Your task to perform on an android device: turn vacation reply on in the gmail app Image 0: 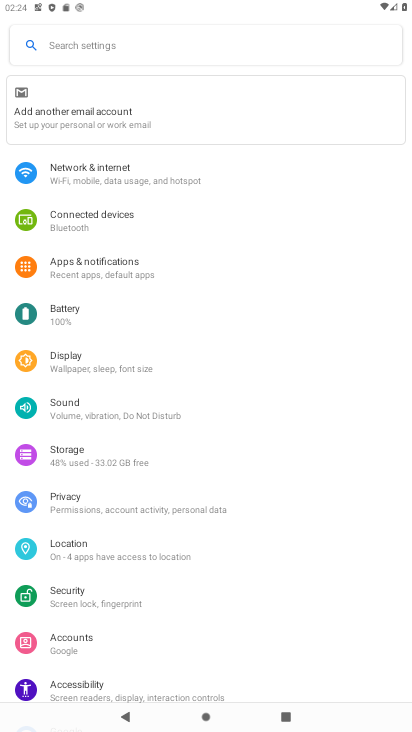
Step 0: press home button
Your task to perform on an android device: turn vacation reply on in the gmail app Image 1: 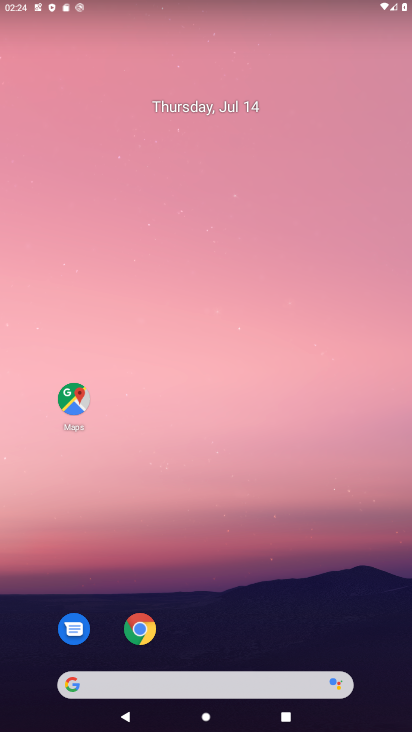
Step 1: drag from (235, 626) to (227, 3)
Your task to perform on an android device: turn vacation reply on in the gmail app Image 2: 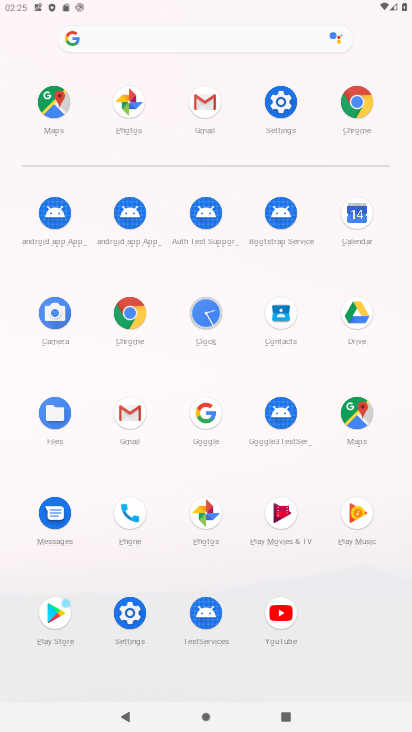
Step 2: click (141, 460)
Your task to perform on an android device: turn vacation reply on in the gmail app Image 3: 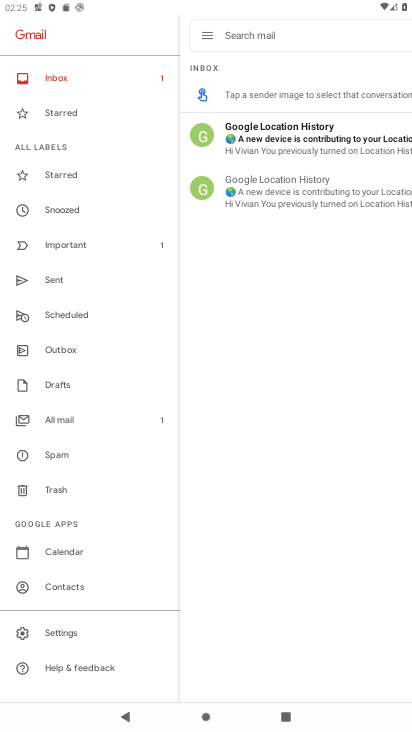
Step 3: click (61, 633)
Your task to perform on an android device: turn vacation reply on in the gmail app Image 4: 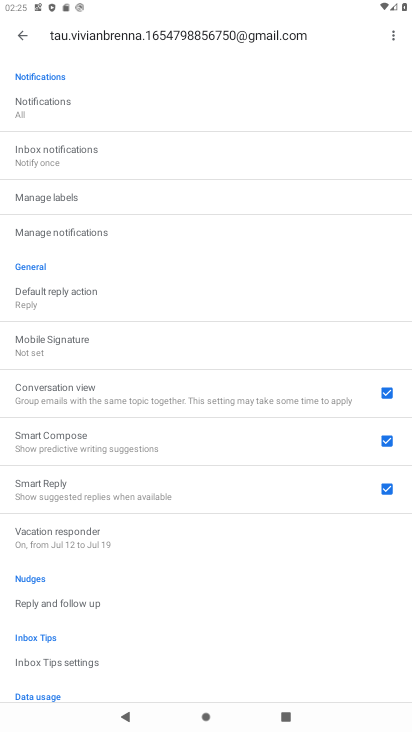
Step 4: click (104, 543)
Your task to perform on an android device: turn vacation reply on in the gmail app Image 5: 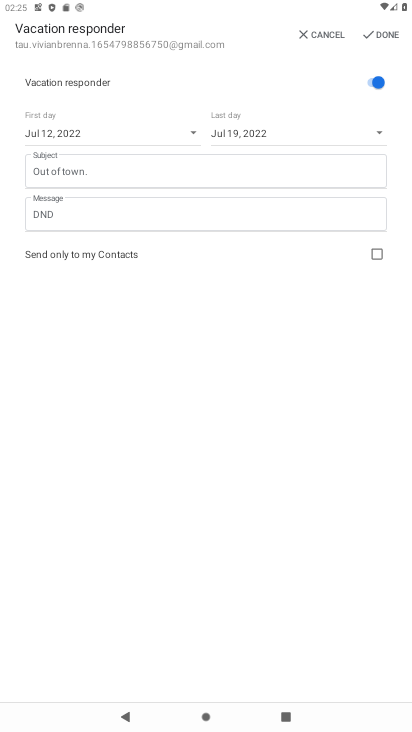
Step 5: task complete